Your task to perform on an android device: Go to Google maps Image 0: 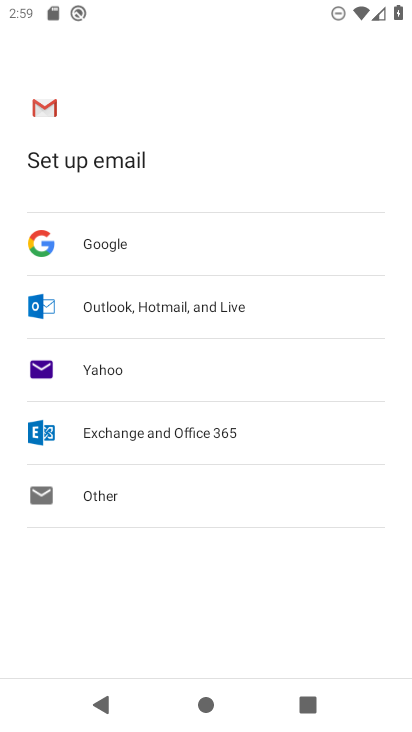
Step 0: press back button
Your task to perform on an android device: Go to Google maps Image 1: 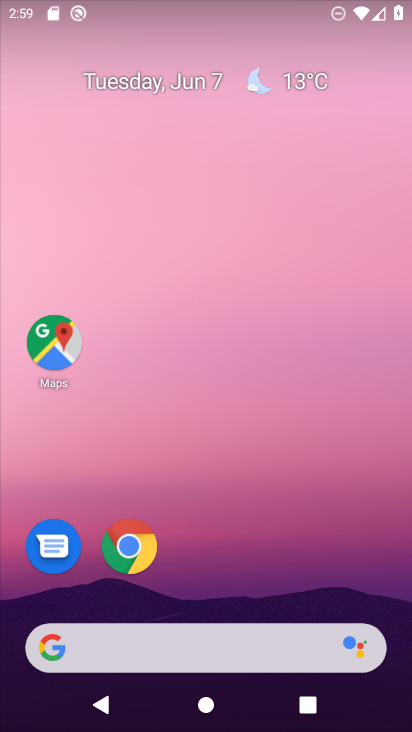
Step 1: drag from (251, 566) to (191, 10)
Your task to perform on an android device: Go to Google maps Image 2: 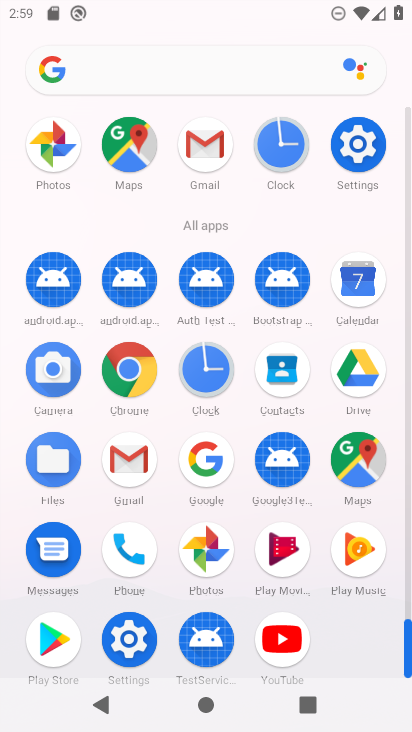
Step 2: click (127, 138)
Your task to perform on an android device: Go to Google maps Image 3: 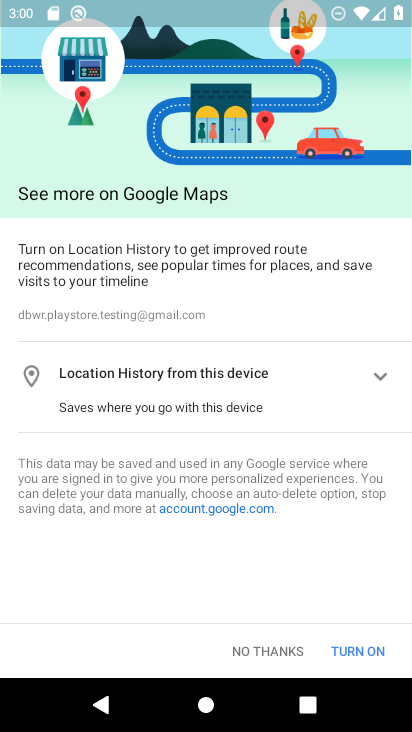
Step 3: click (357, 654)
Your task to perform on an android device: Go to Google maps Image 4: 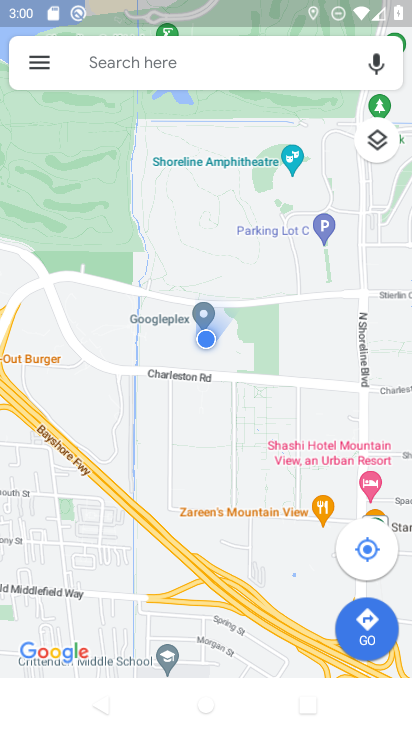
Step 4: task complete